Your task to perform on an android device: toggle sleep mode Image 0: 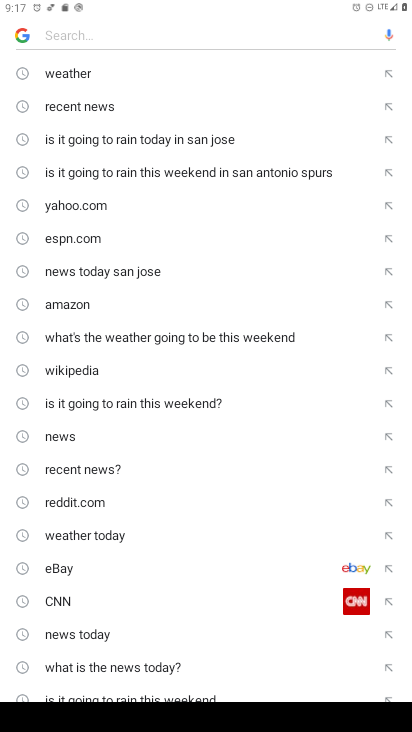
Step 0: press home button
Your task to perform on an android device: toggle sleep mode Image 1: 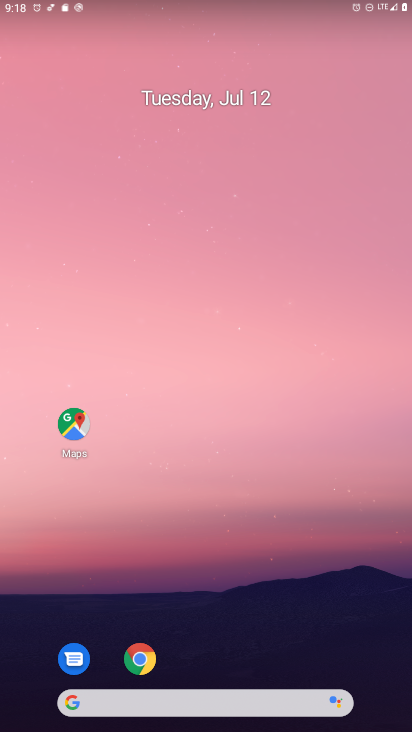
Step 1: drag from (188, 691) to (229, 310)
Your task to perform on an android device: toggle sleep mode Image 2: 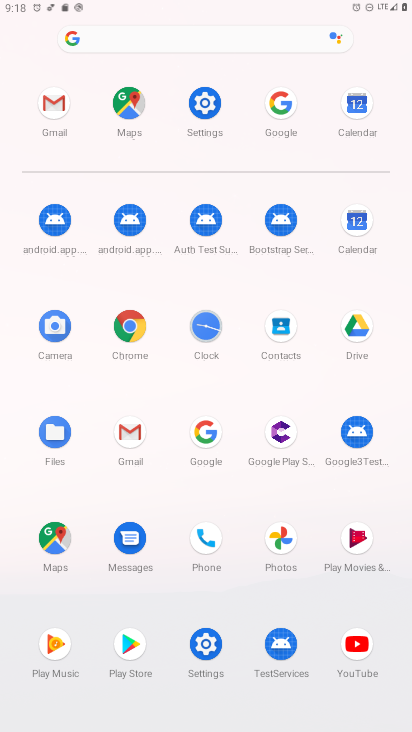
Step 2: click (206, 105)
Your task to perform on an android device: toggle sleep mode Image 3: 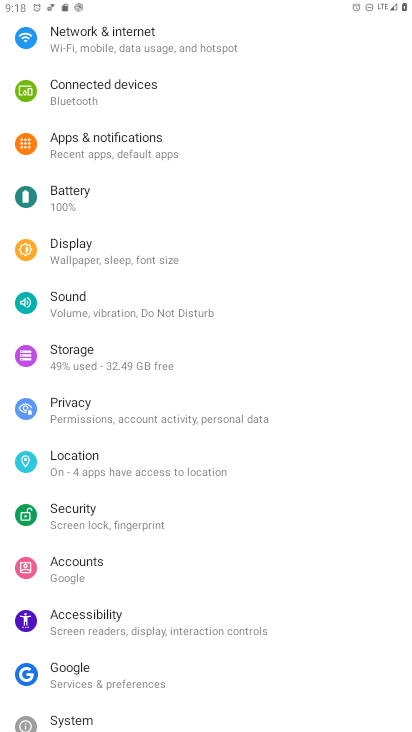
Step 3: click (117, 257)
Your task to perform on an android device: toggle sleep mode Image 4: 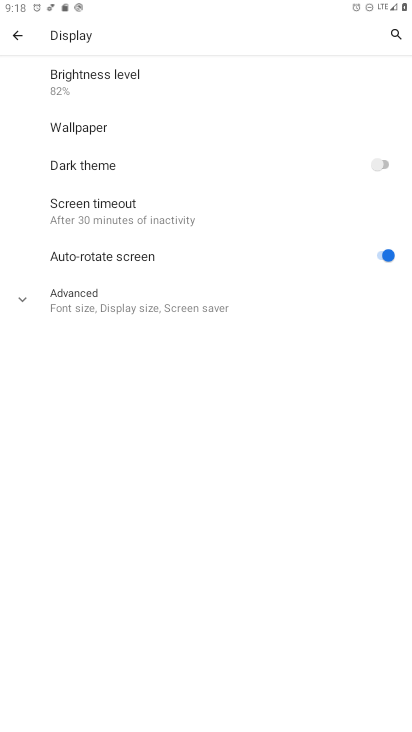
Step 4: click (172, 221)
Your task to perform on an android device: toggle sleep mode Image 5: 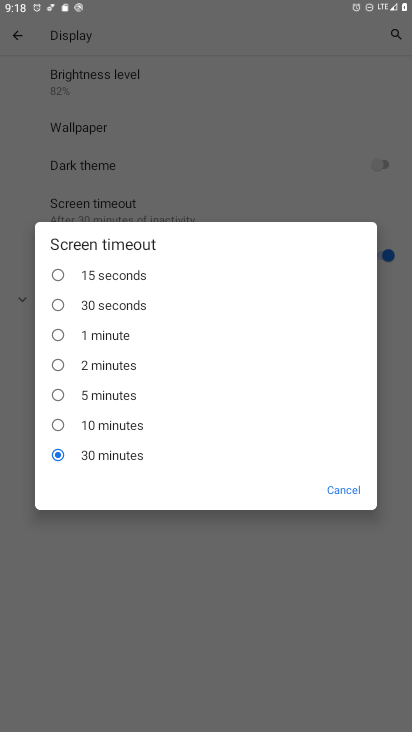
Step 5: click (344, 487)
Your task to perform on an android device: toggle sleep mode Image 6: 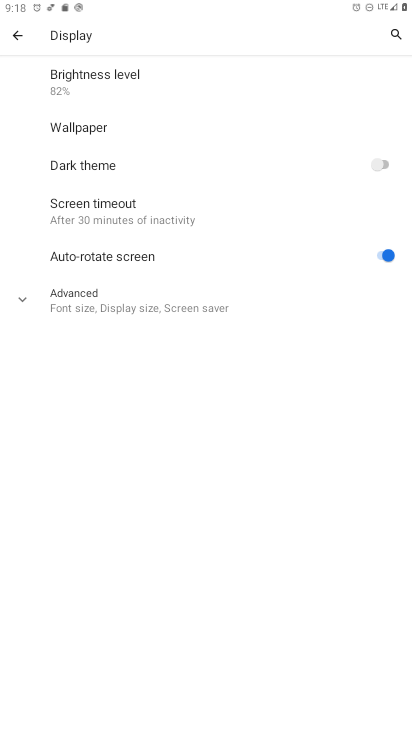
Step 6: click (84, 303)
Your task to perform on an android device: toggle sleep mode Image 7: 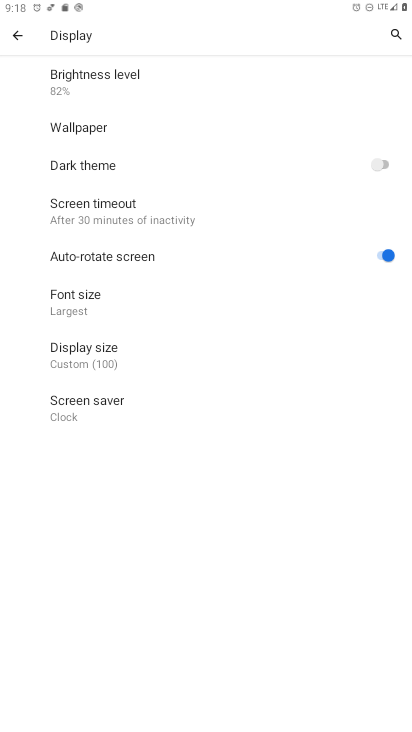
Step 7: task complete